Your task to perform on an android device: toggle sleep mode Image 0: 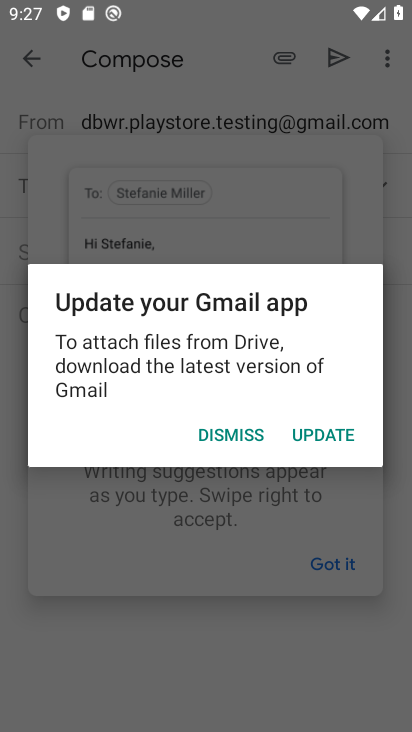
Step 0: press back button
Your task to perform on an android device: toggle sleep mode Image 1: 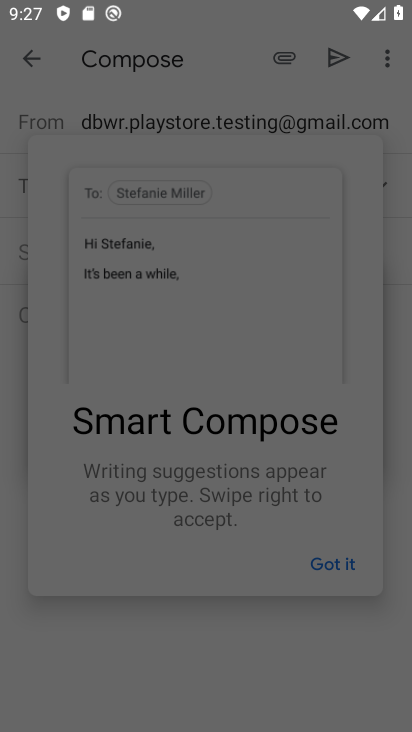
Step 1: press back button
Your task to perform on an android device: toggle sleep mode Image 2: 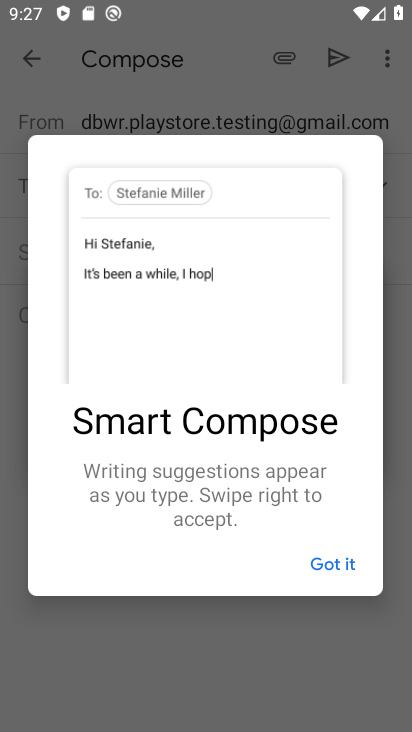
Step 2: press home button
Your task to perform on an android device: toggle sleep mode Image 3: 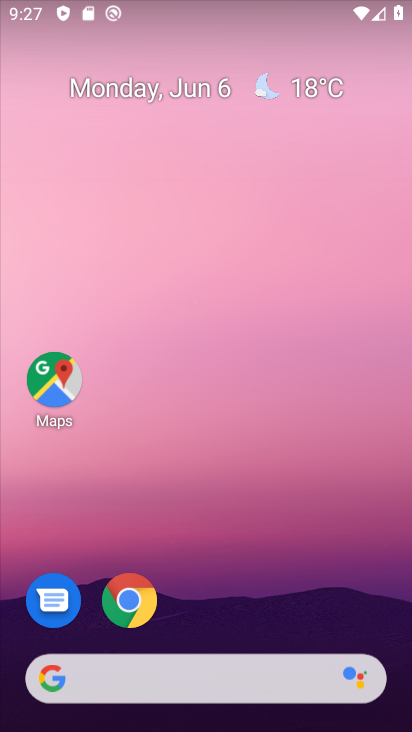
Step 3: drag from (251, 554) to (211, 39)
Your task to perform on an android device: toggle sleep mode Image 4: 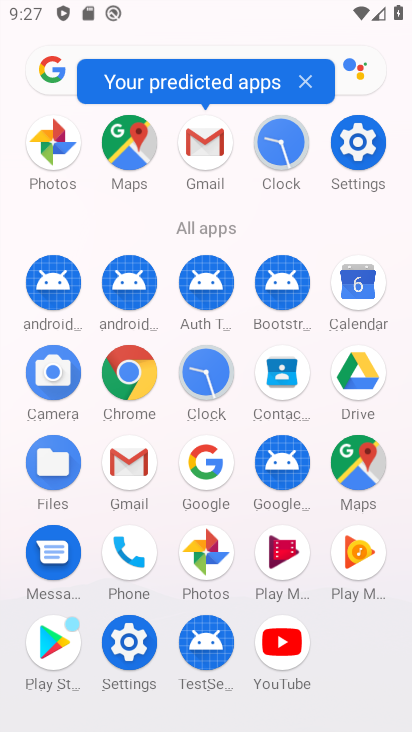
Step 4: click (133, 640)
Your task to perform on an android device: toggle sleep mode Image 5: 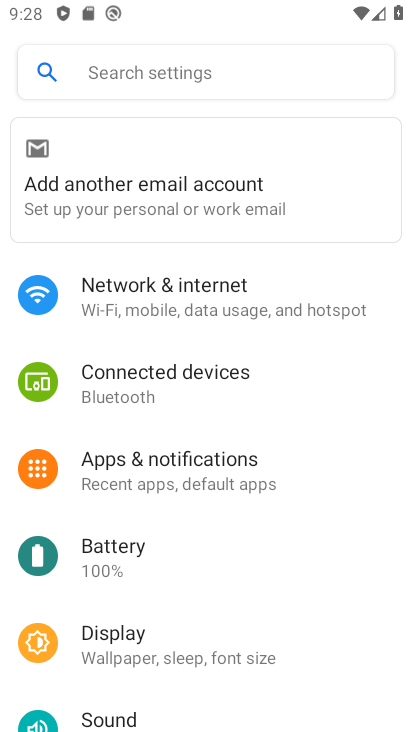
Step 5: click (135, 638)
Your task to perform on an android device: toggle sleep mode Image 6: 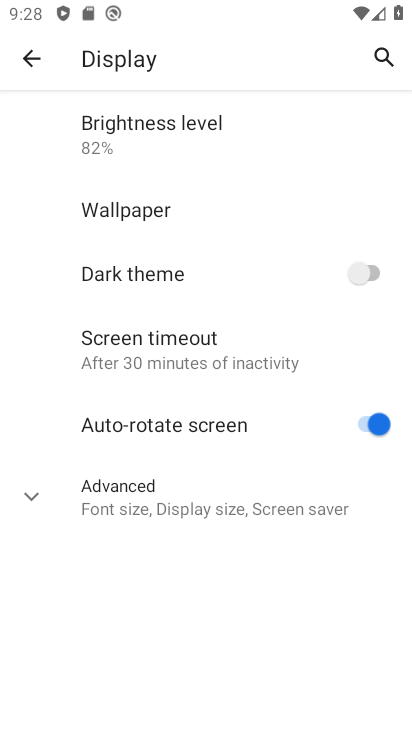
Step 6: click (28, 484)
Your task to perform on an android device: toggle sleep mode Image 7: 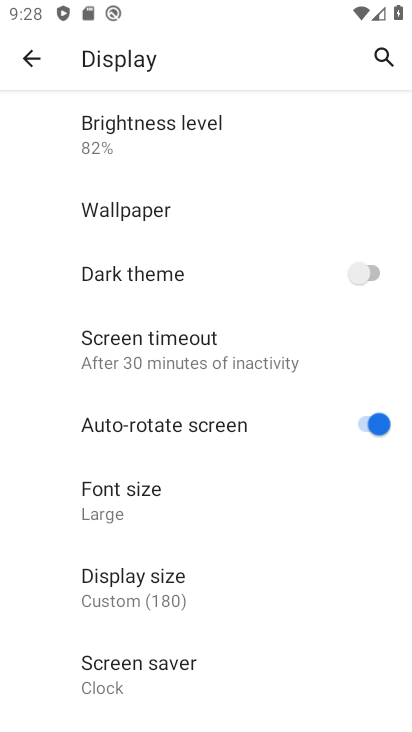
Step 7: task complete